Your task to perform on an android device: change the clock display to analog Image 0: 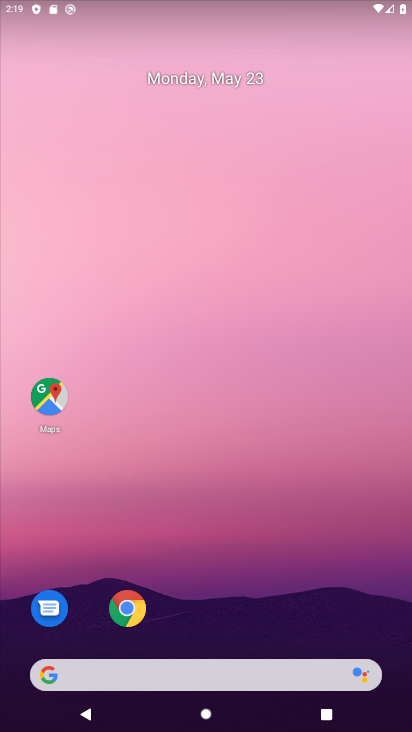
Step 0: drag from (177, 533) to (243, 30)
Your task to perform on an android device: change the clock display to analog Image 1: 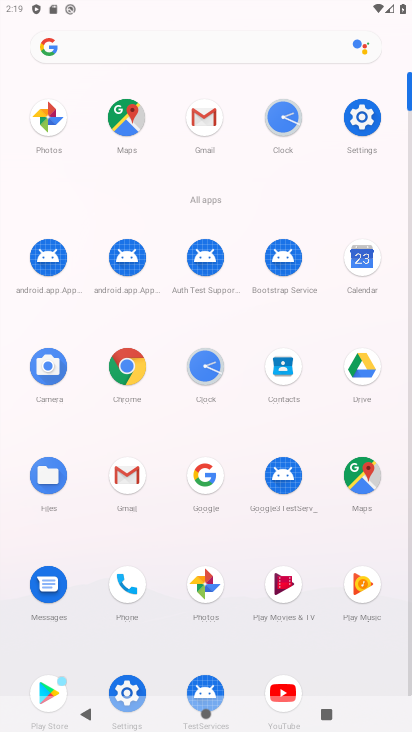
Step 1: click (284, 136)
Your task to perform on an android device: change the clock display to analog Image 2: 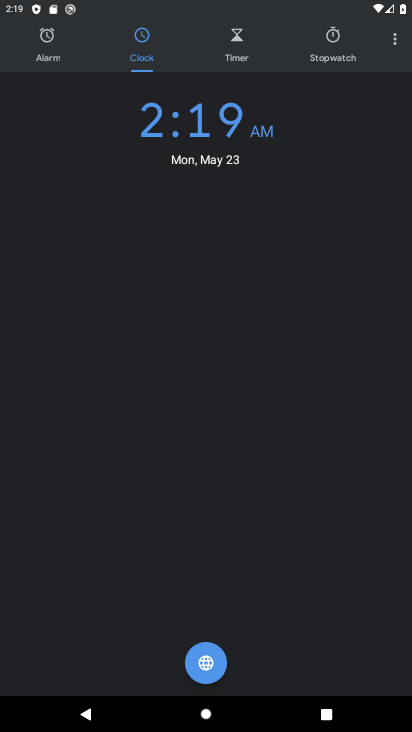
Step 2: click (386, 44)
Your task to perform on an android device: change the clock display to analog Image 3: 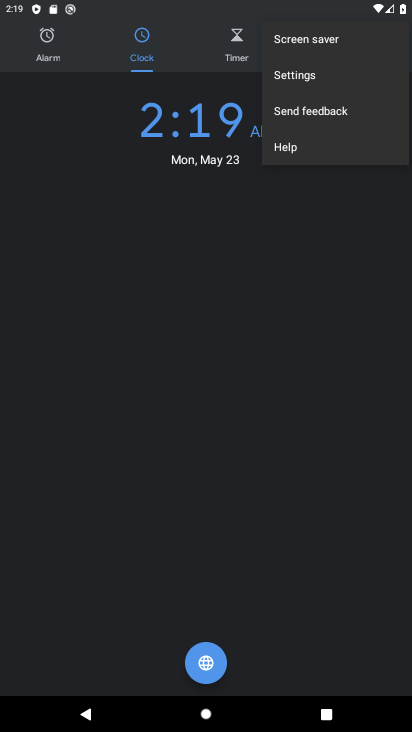
Step 3: click (292, 77)
Your task to perform on an android device: change the clock display to analog Image 4: 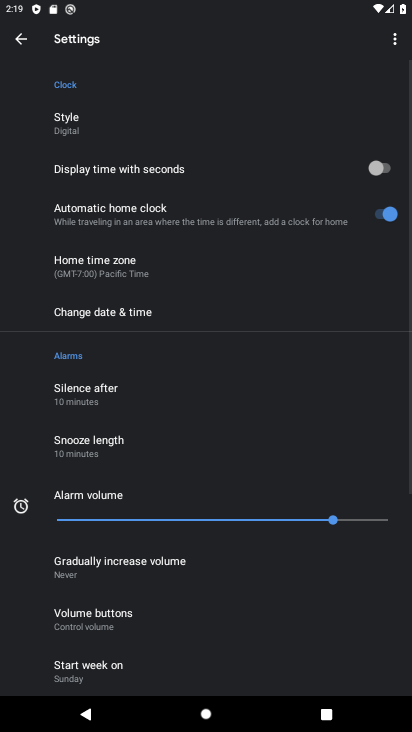
Step 4: click (68, 118)
Your task to perform on an android device: change the clock display to analog Image 5: 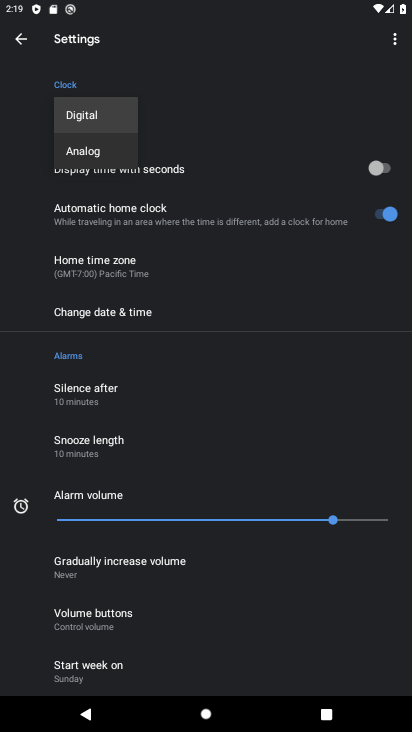
Step 5: click (90, 155)
Your task to perform on an android device: change the clock display to analog Image 6: 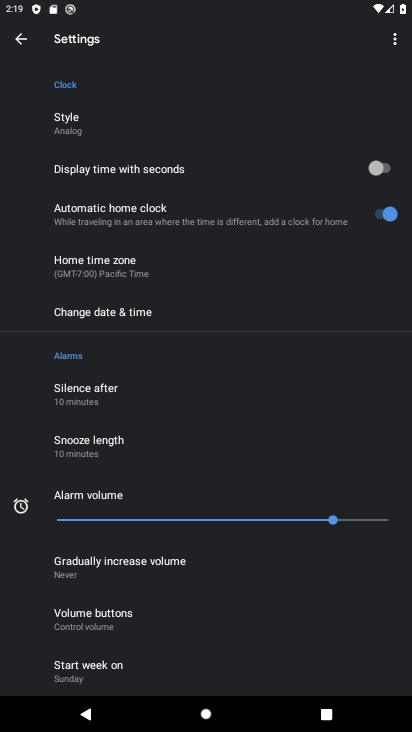
Step 6: task complete